Your task to perform on an android device: Go to privacy settings Image 0: 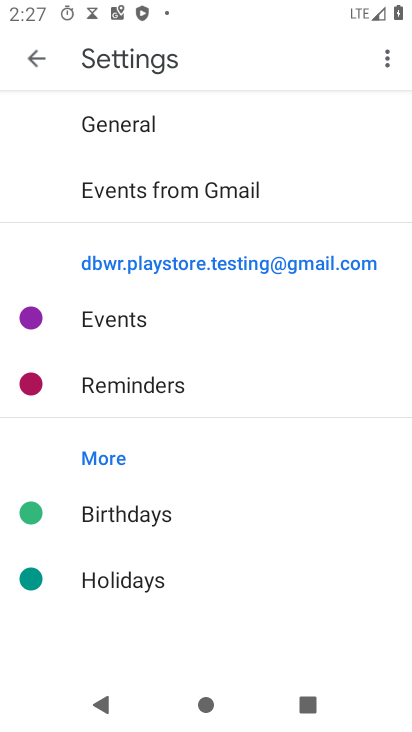
Step 0: press home button
Your task to perform on an android device: Go to privacy settings Image 1: 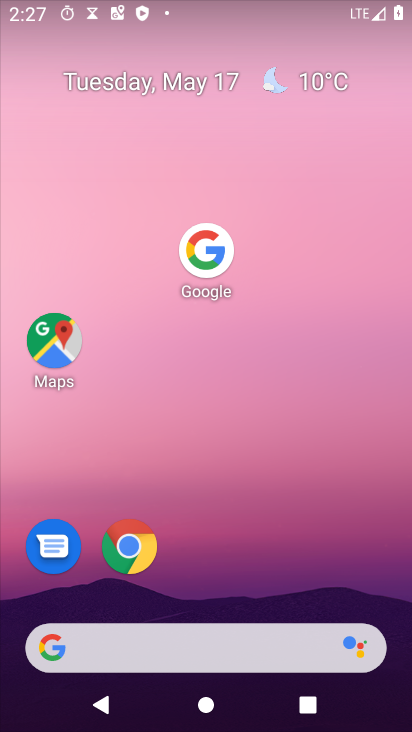
Step 1: drag from (140, 642) to (257, 260)
Your task to perform on an android device: Go to privacy settings Image 2: 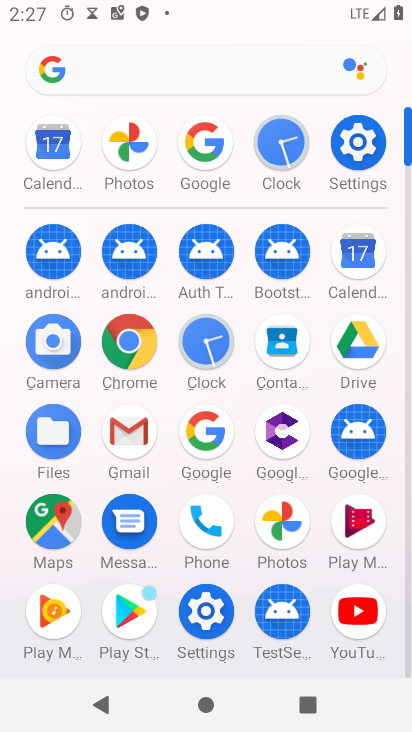
Step 2: click (359, 159)
Your task to perform on an android device: Go to privacy settings Image 3: 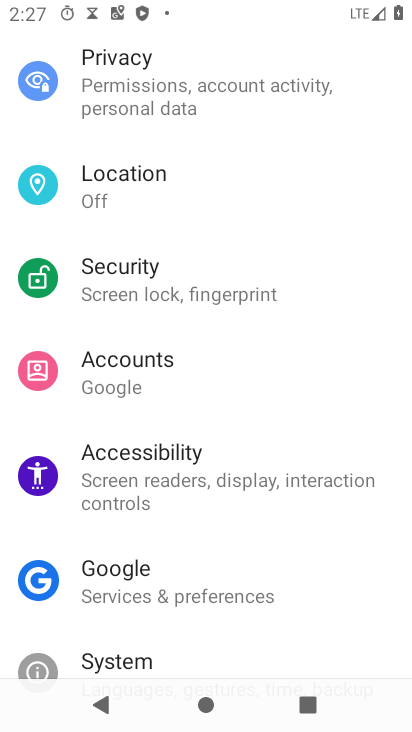
Step 3: click (164, 91)
Your task to perform on an android device: Go to privacy settings Image 4: 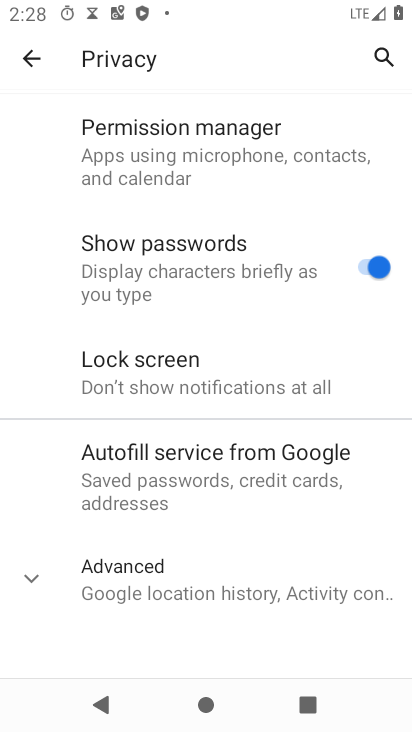
Step 4: task complete